Your task to perform on an android device: What's the weather today? Image 0: 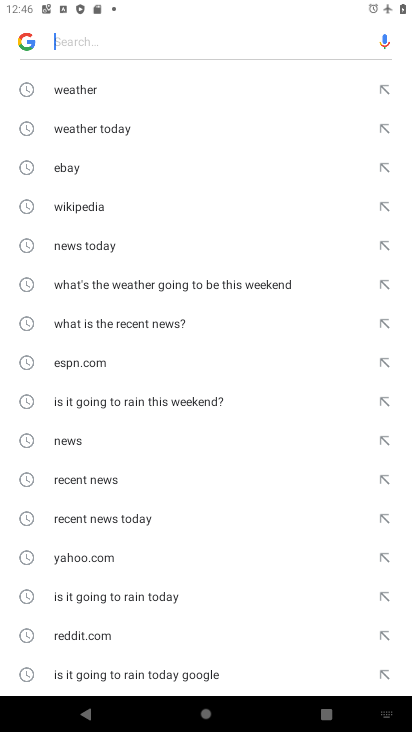
Step 0: press home button
Your task to perform on an android device: What's the weather today? Image 1: 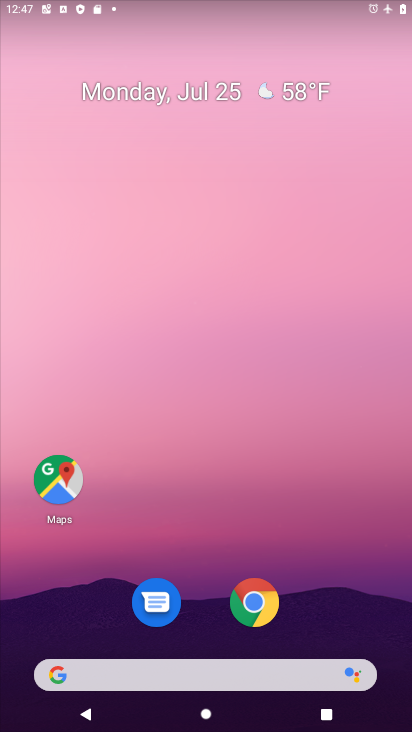
Step 1: drag from (196, 572) to (188, 152)
Your task to perform on an android device: What's the weather today? Image 2: 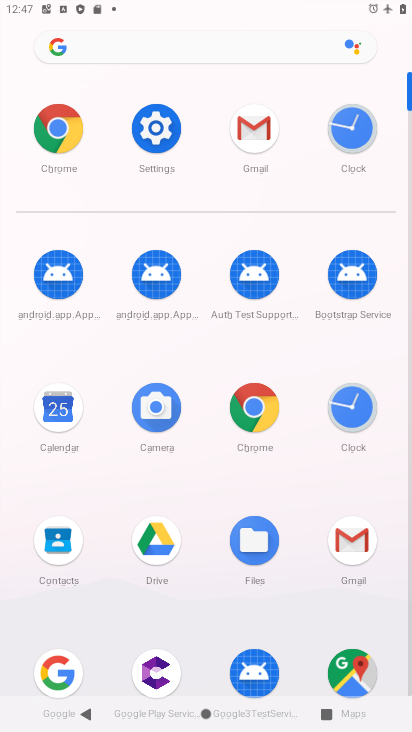
Step 2: click (62, 668)
Your task to perform on an android device: What's the weather today? Image 3: 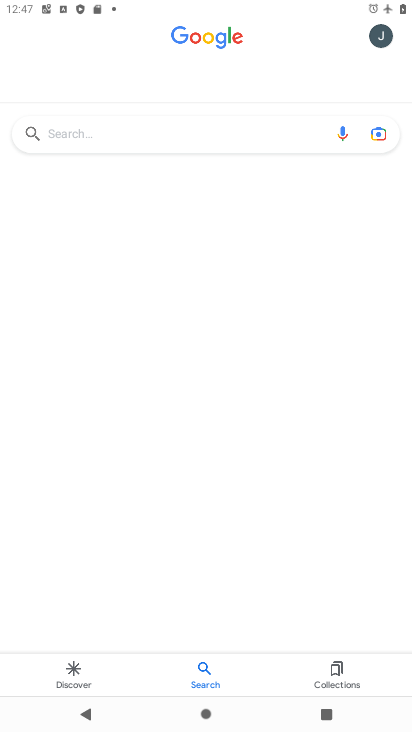
Step 3: click (126, 135)
Your task to perform on an android device: What's the weather today? Image 4: 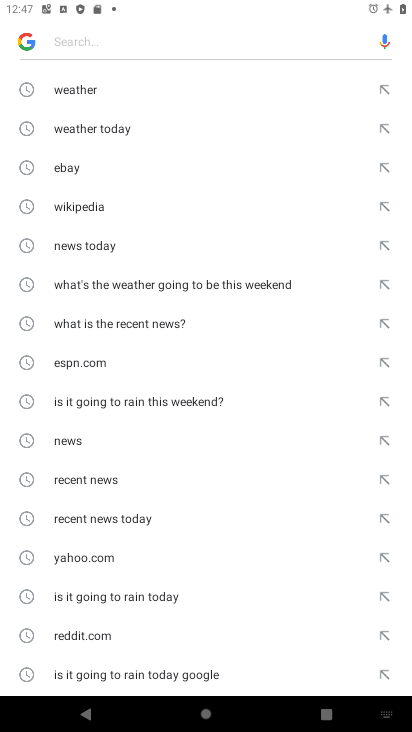
Step 4: click (66, 82)
Your task to perform on an android device: What's the weather today? Image 5: 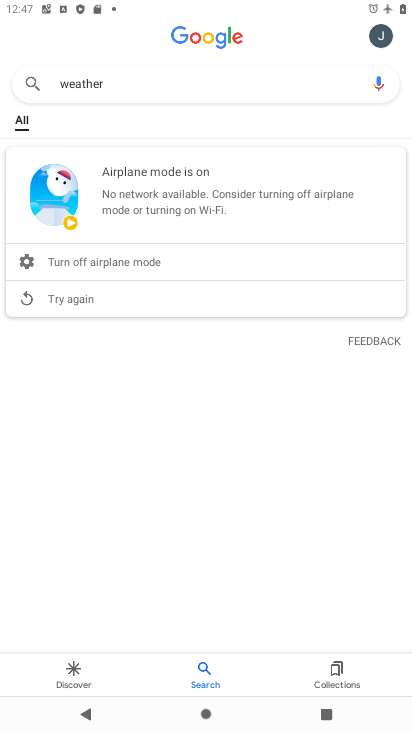
Step 5: task complete